Your task to perform on an android device: turn on the 12-hour format for clock Image 0: 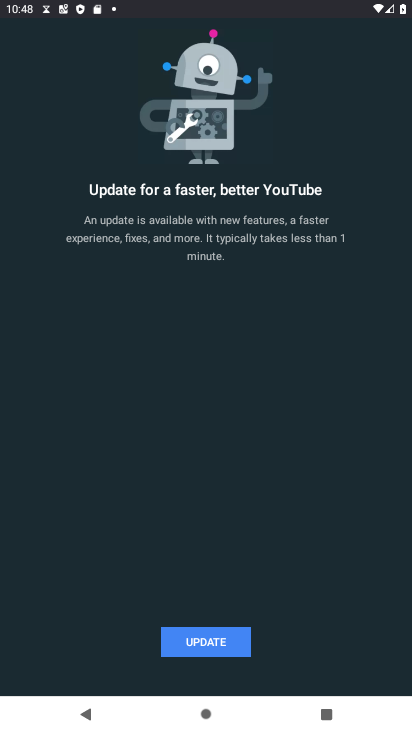
Step 0: press home button
Your task to perform on an android device: turn on the 12-hour format for clock Image 1: 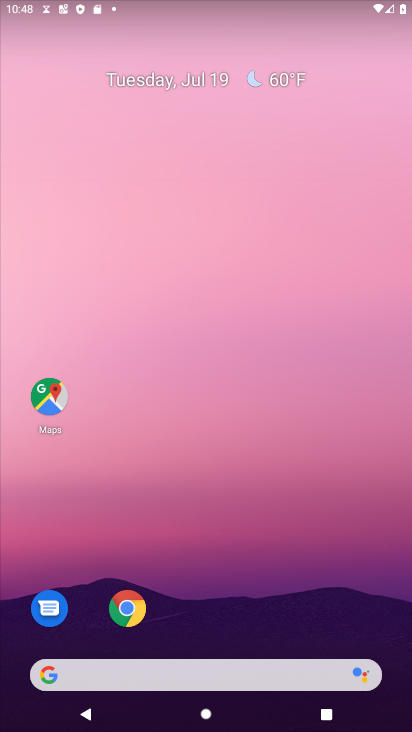
Step 1: drag from (299, 623) to (352, 141)
Your task to perform on an android device: turn on the 12-hour format for clock Image 2: 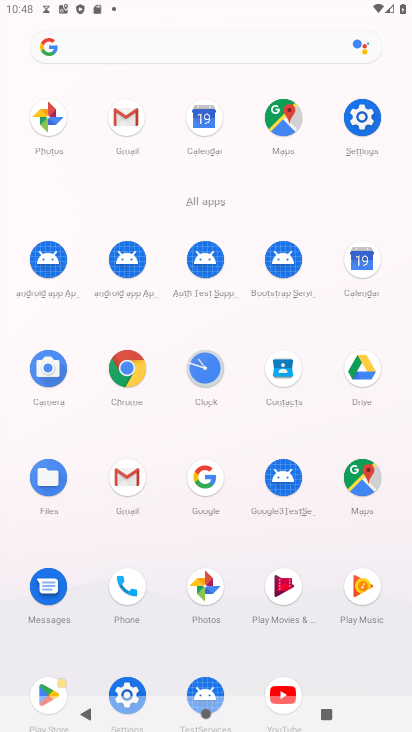
Step 2: click (215, 363)
Your task to perform on an android device: turn on the 12-hour format for clock Image 3: 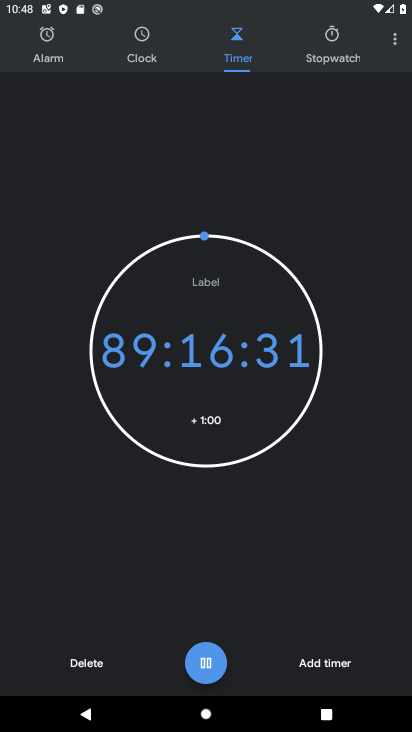
Step 3: click (400, 32)
Your task to perform on an android device: turn on the 12-hour format for clock Image 4: 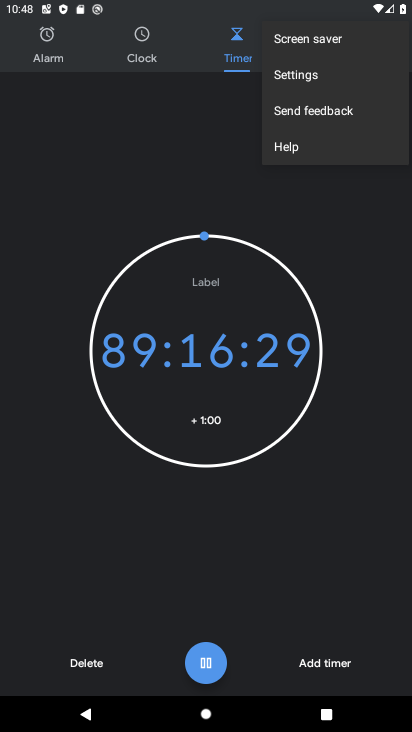
Step 4: click (304, 80)
Your task to perform on an android device: turn on the 12-hour format for clock Image 5: 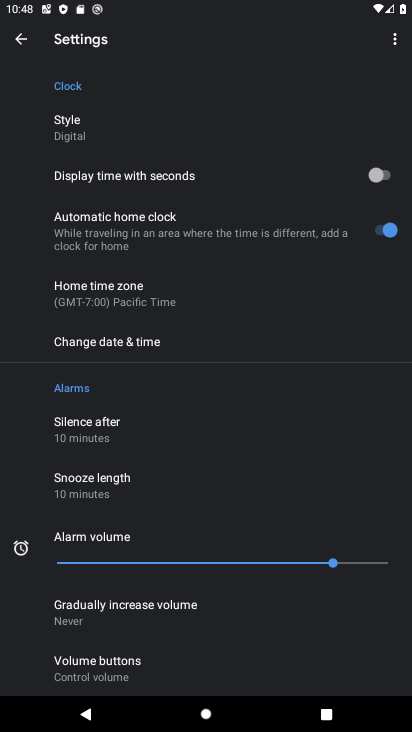
Step 5: click (118, 350)
Your task to perform on an android device: turn on the 12-hour format for clock Image 6: 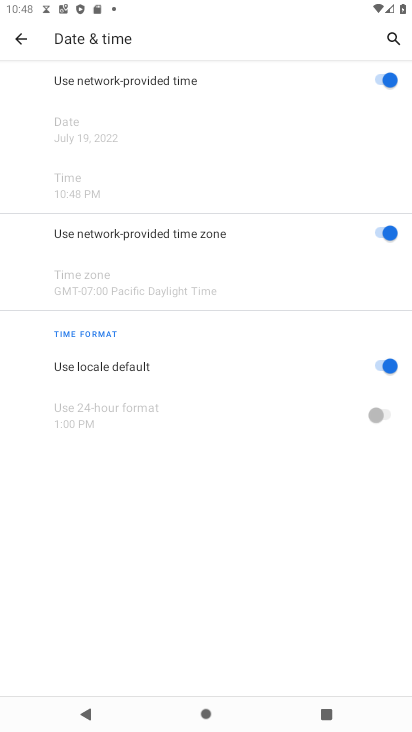
Step 6: task complete